Your task to perform on an android device: open chrome privacy settings Image 0: 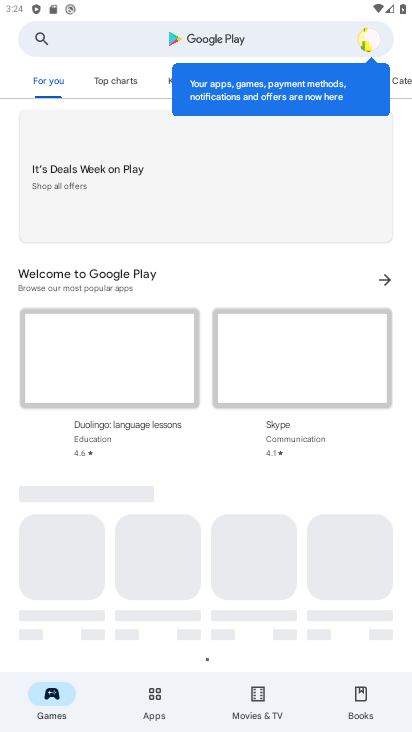
Step 0: press home button
Your task to perform on an android device: open chrome privacy settings Image 1: 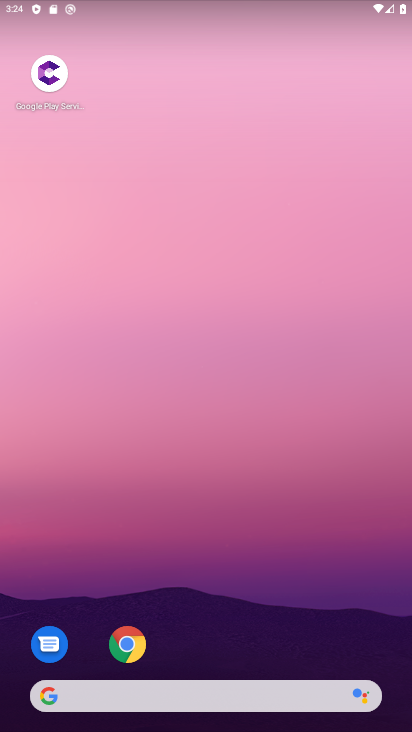
Step 1: click (124, 637)
Your task to perform on an android device: open chrome privacy settings Image 2: 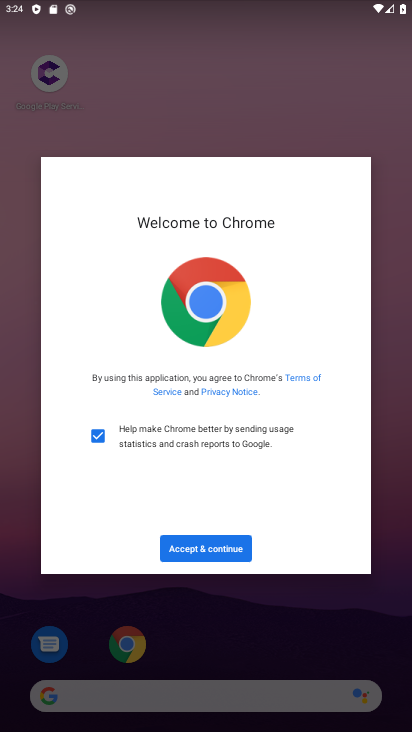
Step 2: click (246, 556)
Your task to perform on an android device: open chrome privacy settings Image 3: 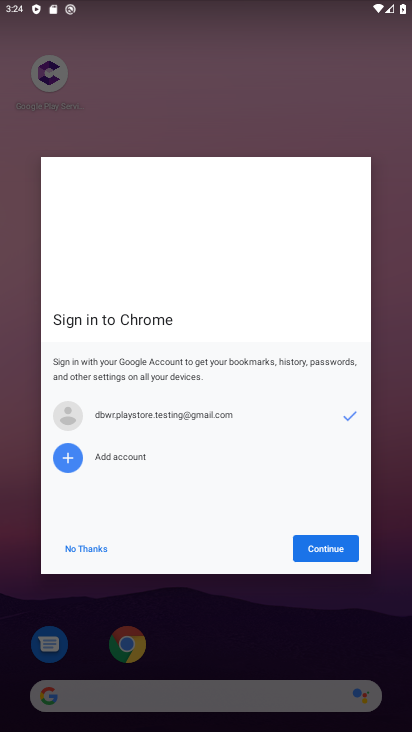
Step 3: click (310, 547)
Your task to perform on an android device: open chrome privacy settings Image 4: 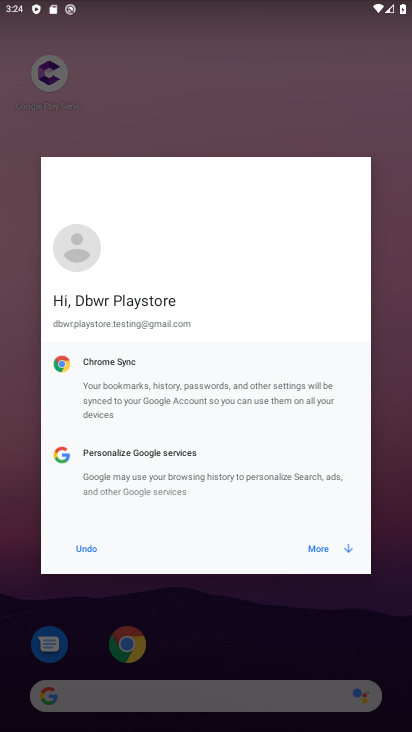
Step 4: click (330, 549)
Your task to perform on an android device: open chrome privacy settings Image 5: 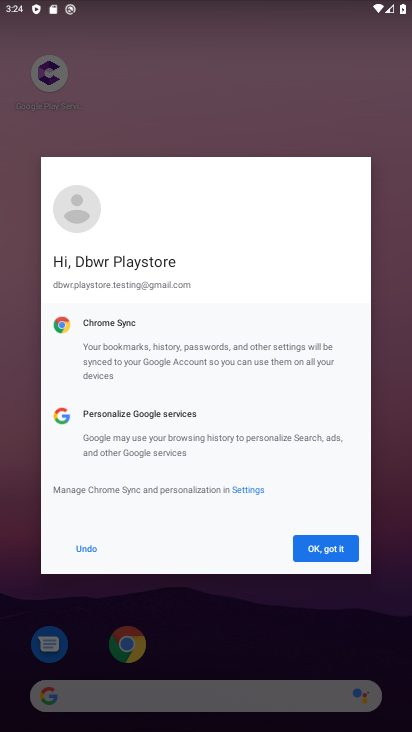
Step 5: click (331, 551)
Your task to perform on an android device: open chrome privacy settings Image 6: 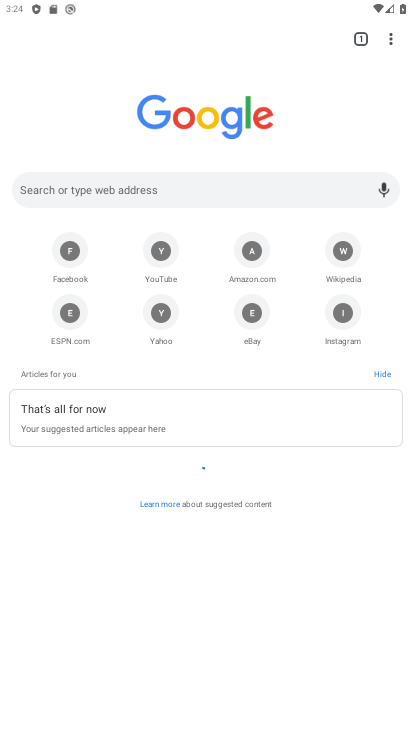
Step 6: drag from (396, 38) to (317, 318)
Your task to perform on an android device: open chrome privacy settings Image 7: 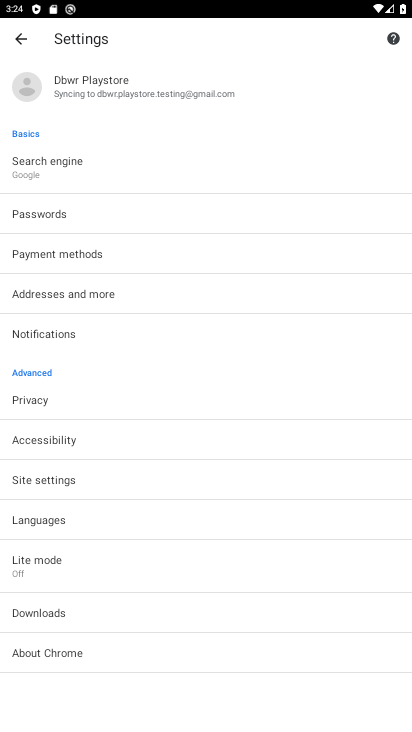
Step 7: click (111, 399)
Your task to perform on an android device: open chrome privacy settings Image 8: 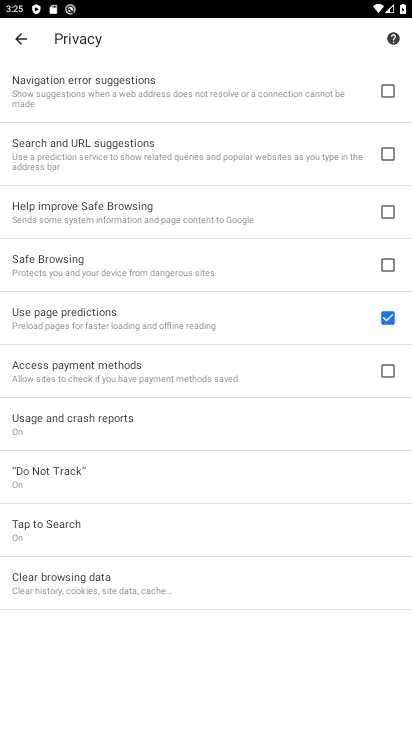
Step 8: task complete